Your task to perform on an android device: change your default location settings in chrome Image 0: 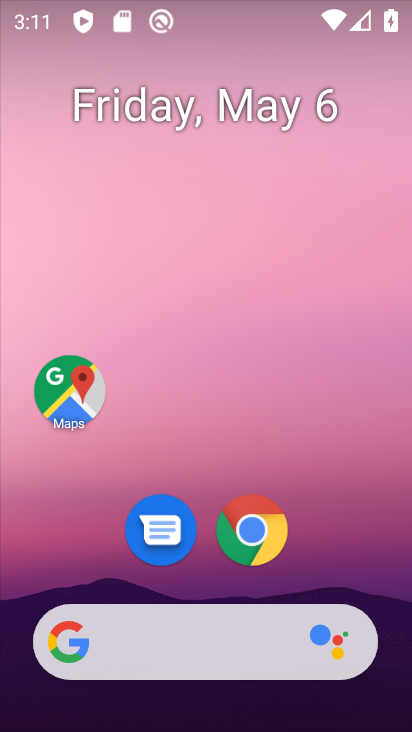
Step 0: drag from (269, 622) to (354, 212)
Your task to perform on an android device: change your default location settings in chrome Image 1: 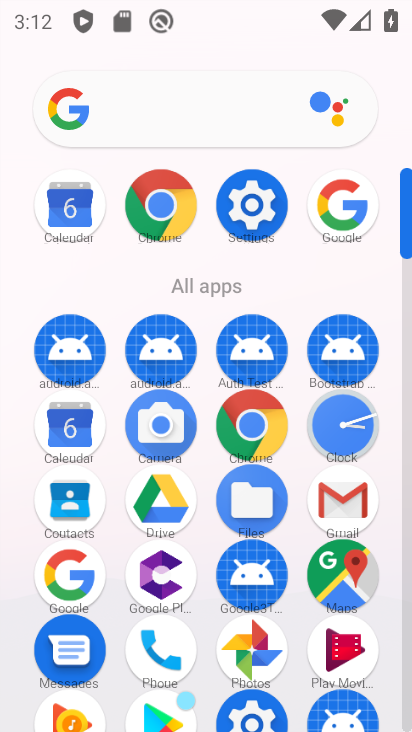
Step 1: click (273, 434)
Your task to perform on an android device: change your default location settings in chrome Image 2: 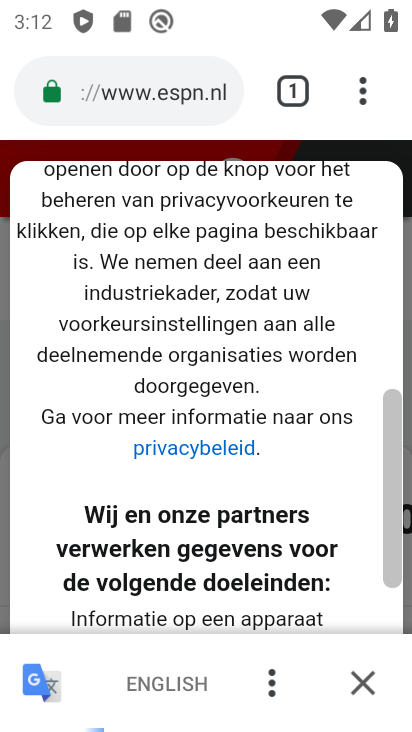
Step 2: click (357, 97)
Your task to perform on an android device: change your default location settings in chrome Image 3: 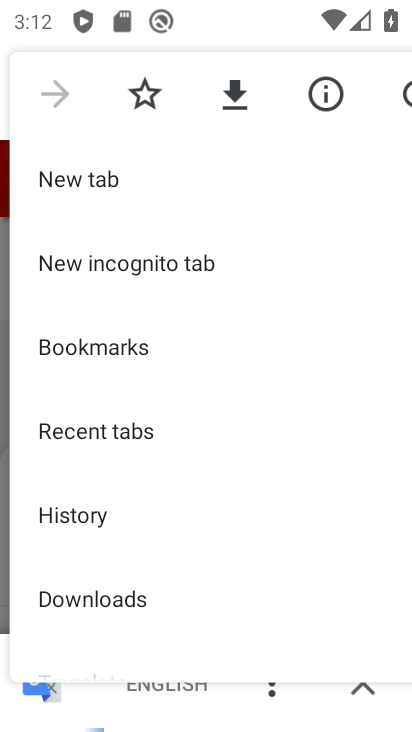
Step 3: drag from (267, 383) to (261, 158)
Your task to perform on an android device: change your default location settings in chrome Image 4: 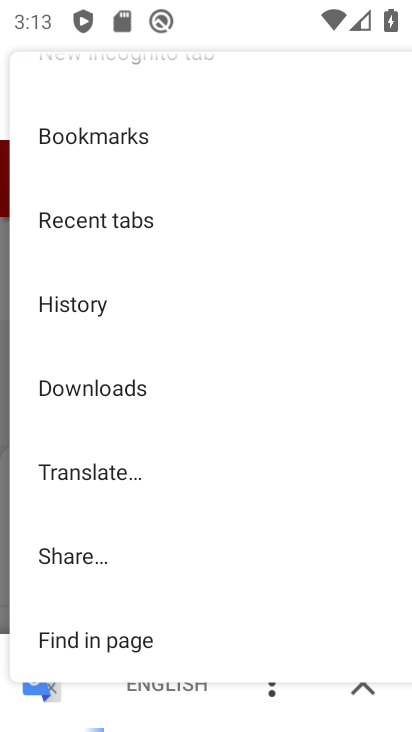
Step 4: drag from (185, 551) to (189, 143)
Your task to perform on an android device: change your default location settings in chrome Image 5: 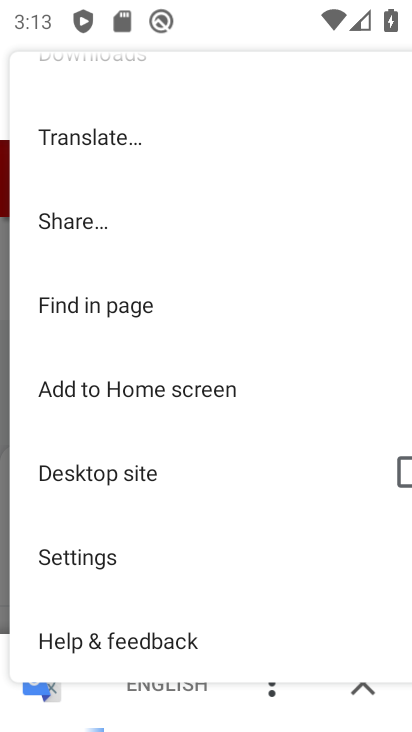
Step 5: click (139, 545)
Your task to perform on an android device: change your default location settings in chrome Image 6: 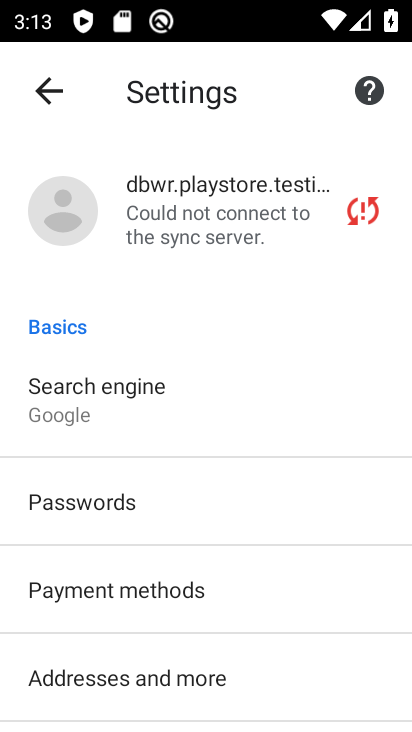
Step 6: drag from (146, 621) to (208, 195)
Your task to perform on an android device: change your default location settings in chrome Image 7: 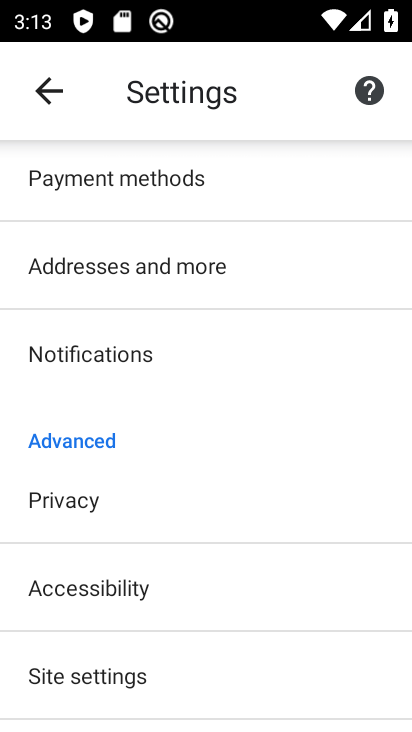
Step 7: drag from (108, 620) to (188, 219)
Your task to perform on an android device: change your default location settings in chrome Image 8: 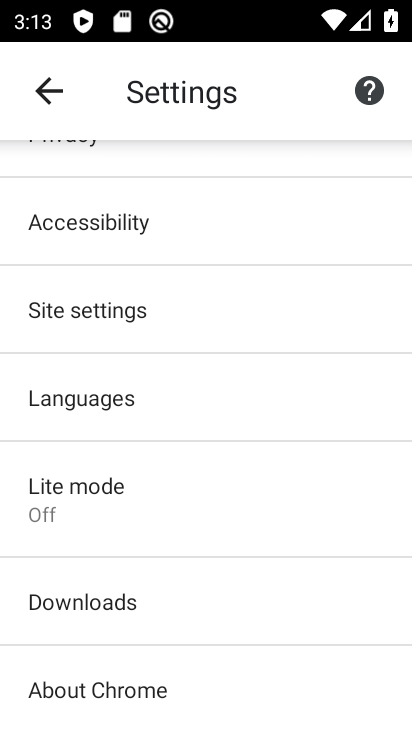
Step 8: click (140, 313)
Your task to perform on an android device: change your default location settings in chrome Image 9: 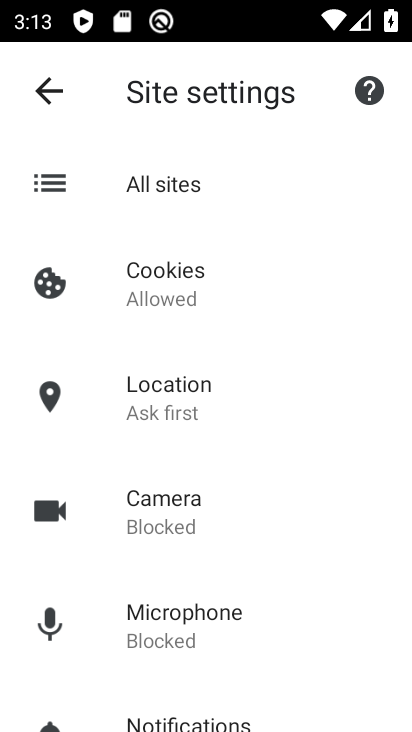
Step 9: drag from (201, 619) to (276, 241)
Your task to perform on an android device: change your default location settings in chrome Image 10: 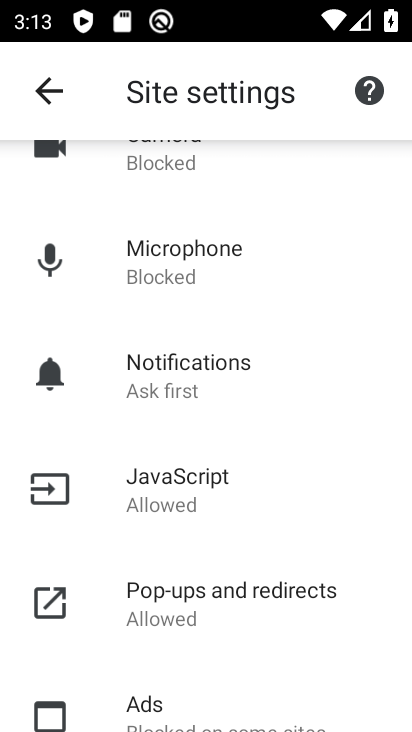
Step 10: drag from (175, 651) to (133, 718)
Your task to perform on an android device: change your default location settings in chrome Image 11: 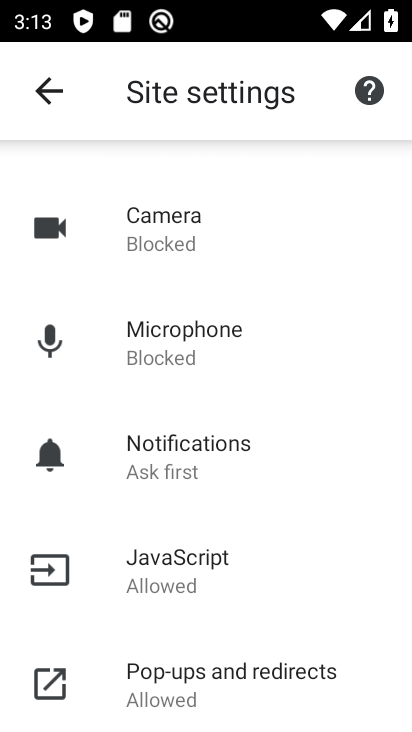
Step 11: drag from (217, 305) to (171, 646)
Your task to perform on an android device: change your default location settings in chrome Image 12: 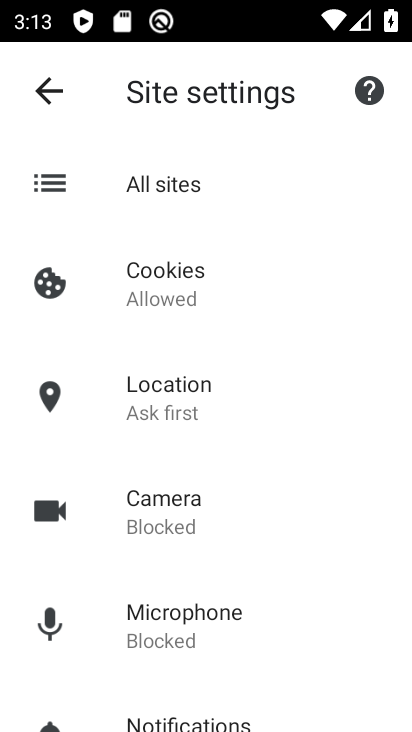
Step 12: click (241, 396)
Your task to perform on an android device: change your default location settings in chrome Image 13: 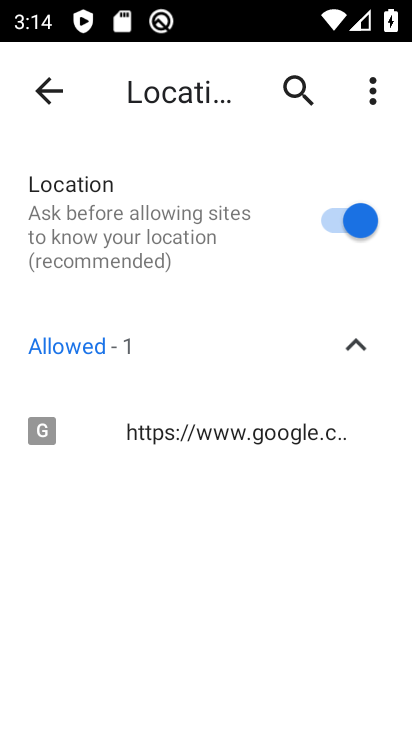
Step 13: click (363, 222)
Your task to perform on an android device: change your default location settings in chrome Image 14: 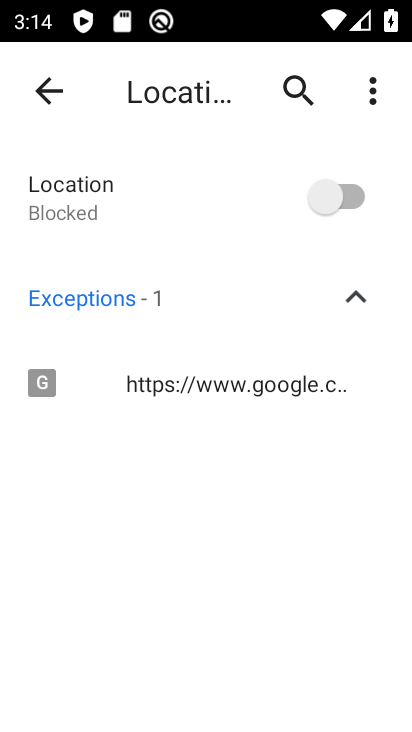
Step 14: task complete